Your task to perform on an android device: change timer sound Image 0: 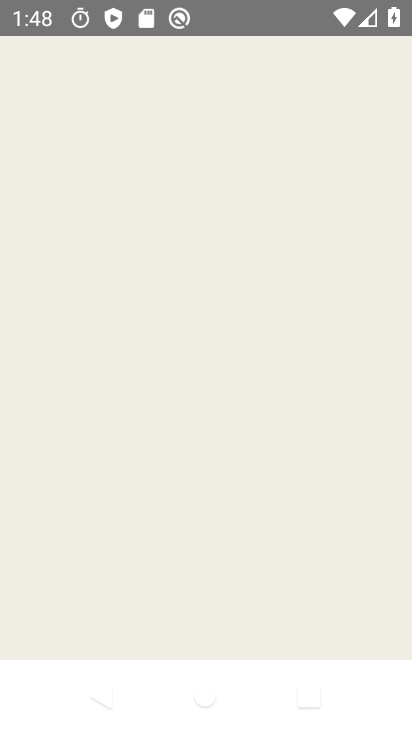
Step 0: press home button
Your task to perform on an android device: change timer sound Image 1: 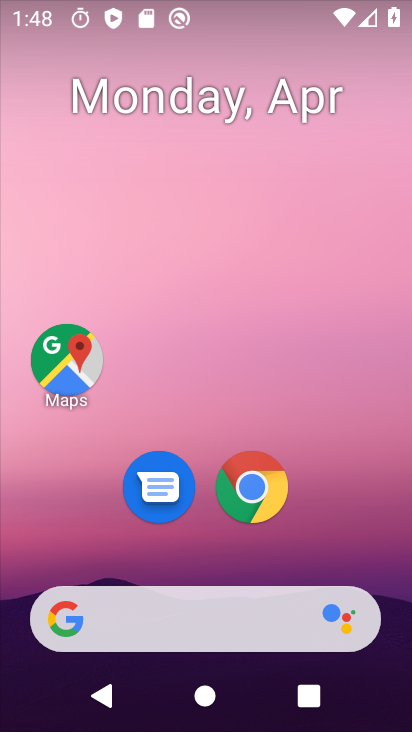
Step 1: drag from (267, 632) to (203, 188)
Your task to perform on an android device: change timer sound Image 2: 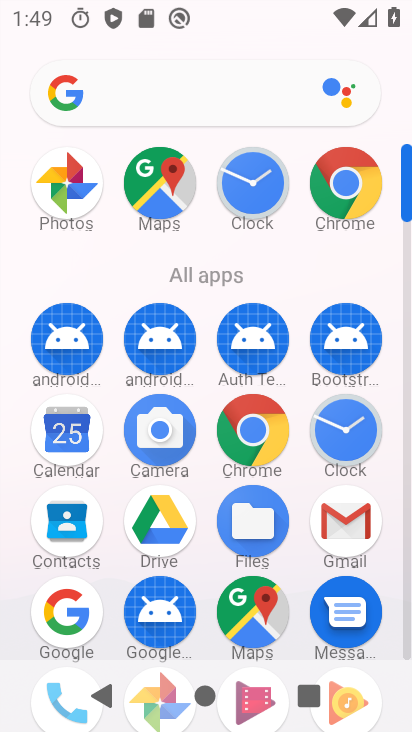
Step 2: click (352, 433)
Your task to perform on an android device: change timer sound Image 3: 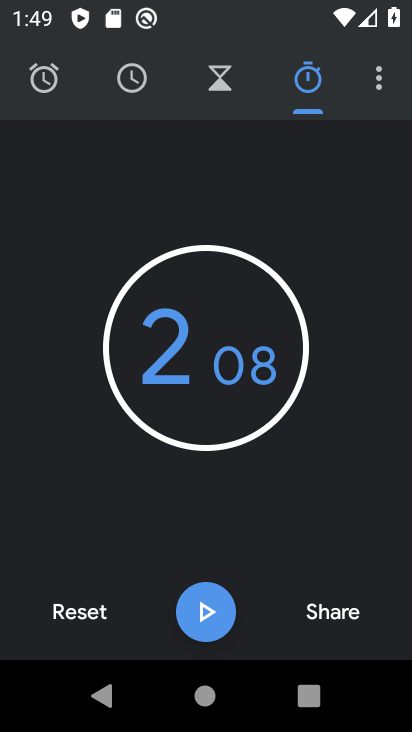
Step 3: click (386, 93)
Your task to perform on an android device: change timer sound Image 4: 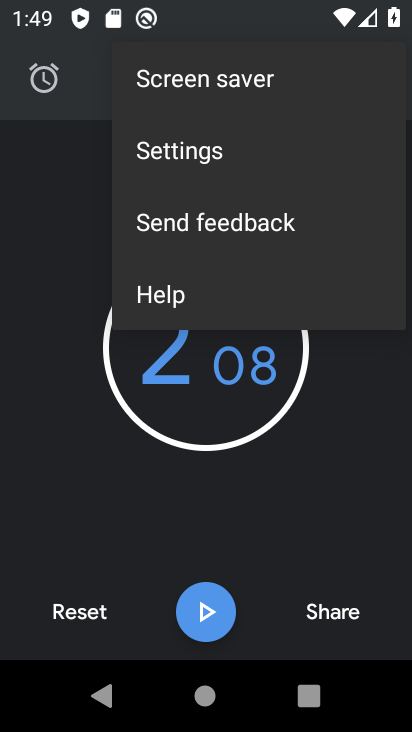
Step 4: click (269, 156)
Your task to perform on an android device: change timer sound Image 5: 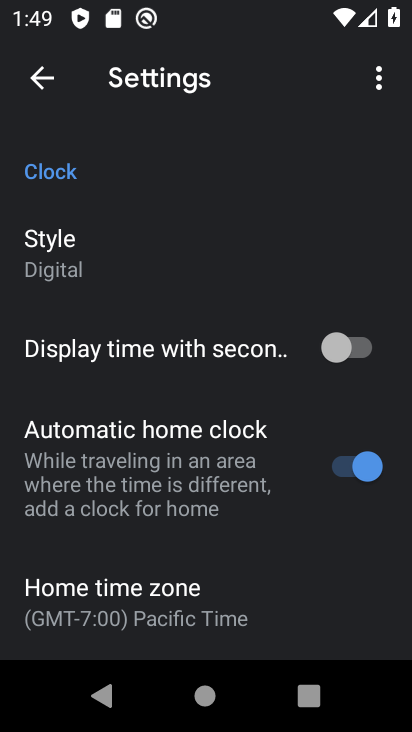
Step 5: drag from (182, 487) to (284, 187)
Your task to perform on an android device: change timer sound Image 6: 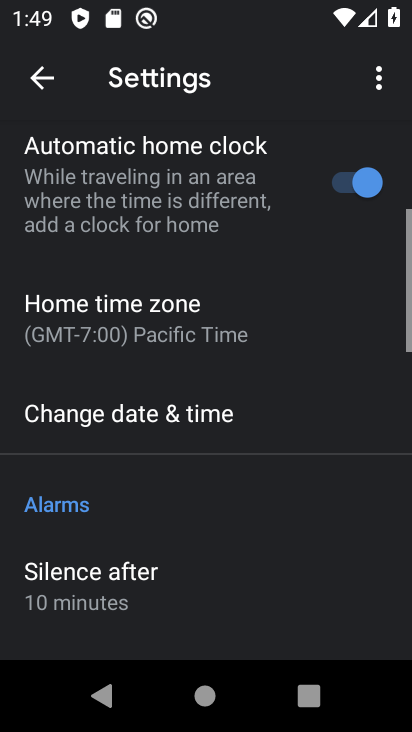
Step 6: drag from (190, 520) to (271, 291)
Your task to perform on an android device: change timer sound Image 7: 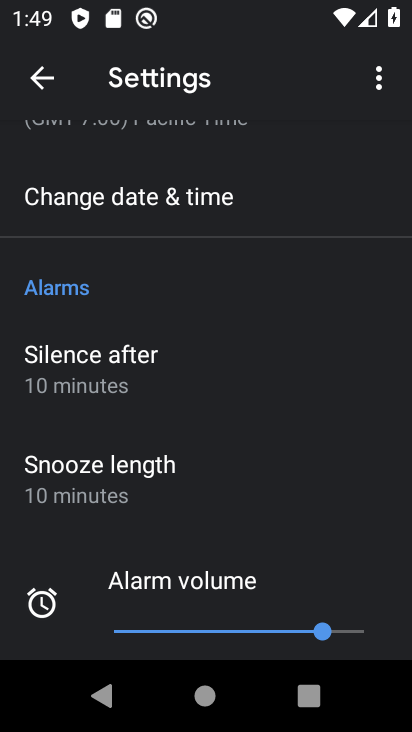
Step 7: drag from (173, 604) to (261, 337)
Your task to perform on an android device: change timer sound Image 8: 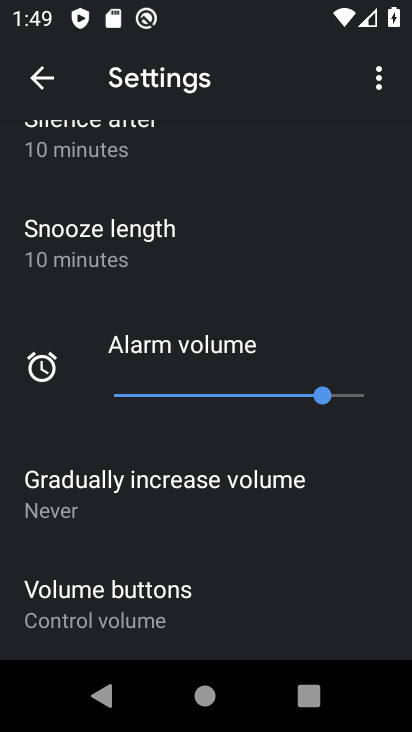
Step 8: drag from (173, 571) to (248, 319)
Your task to perform on an android device: change timer sound Image 9: 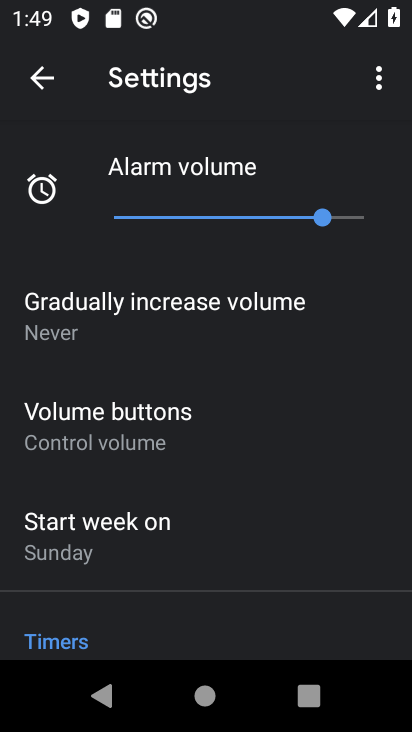
Step 9: drag from (143, 554) to (284, 276)
Your task to perform on an android device: change timer sound Image 10: 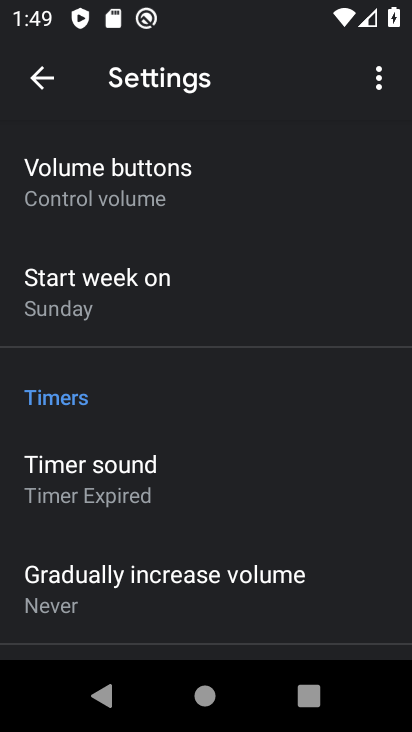
Step 10: click (165, 496)
Your task to perform on an android device: change timer sound Image 11: 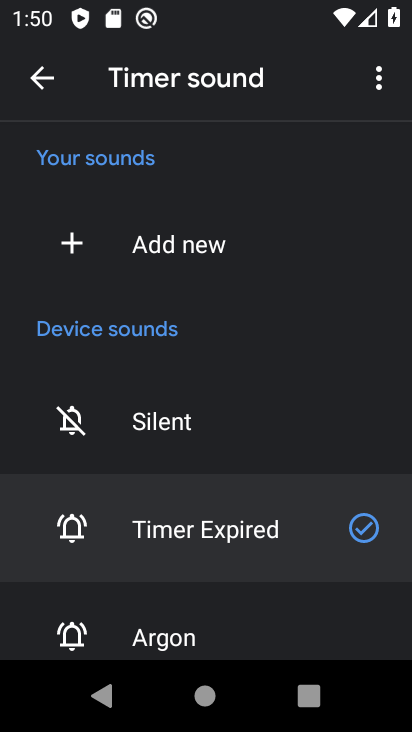
Step 11: click (193, 635)
Your task to perform on an android device: change timer sound Image 12: 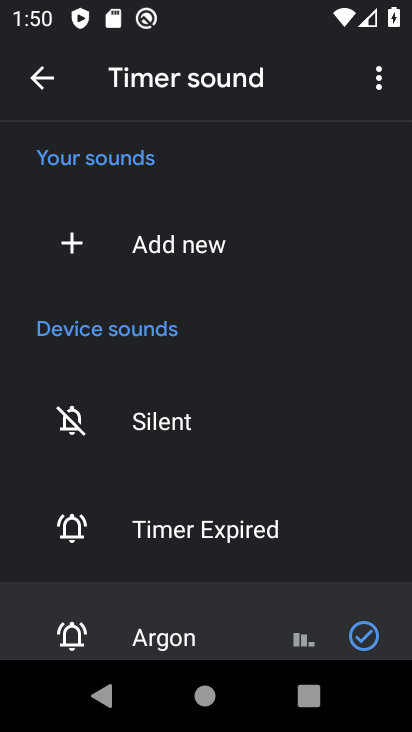
Step 12: task complete